Your task to perform on an android device: change your default location settings in chrome Image 0: 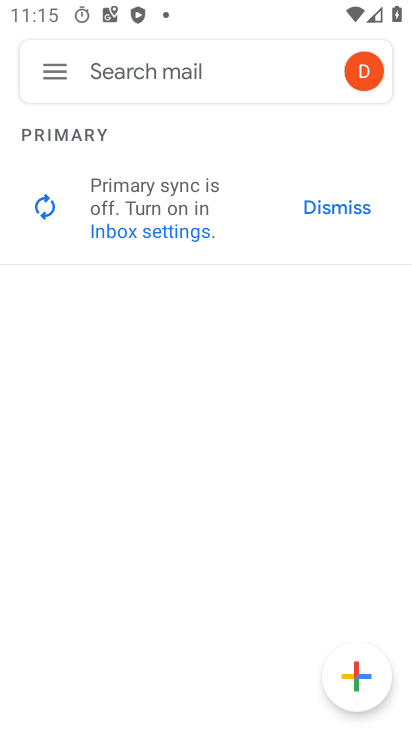
Step 0: press back button
Your task to perform on an android device: change your default location settings in chrome Image 1: 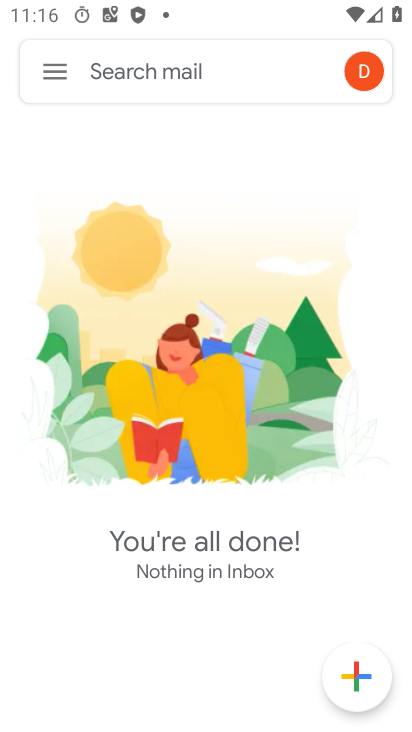
Step 1: press back button
Your task to perform on an android device: change your default location settings in chrome Image 2: 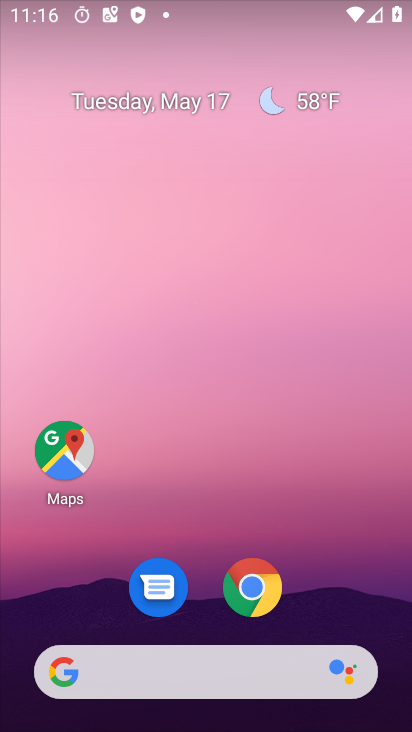
Step 2: click (251, 584)
Your task to perform on an android device: change your default location settings in chrome Image 3: 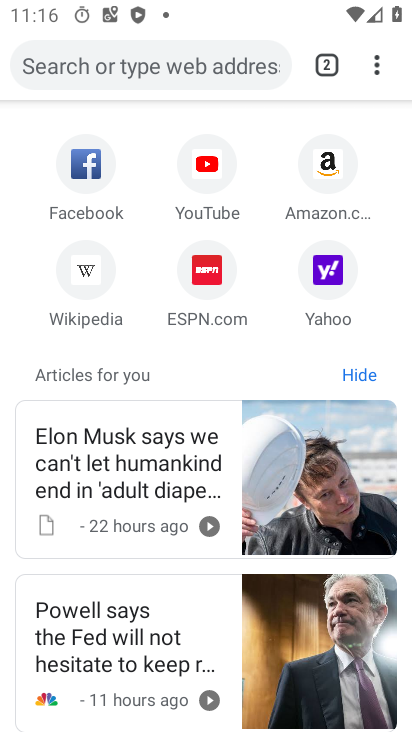
Step 3: click (373, 66)
Your task to perform on an android device: change your default location settings in chrome Image 4: 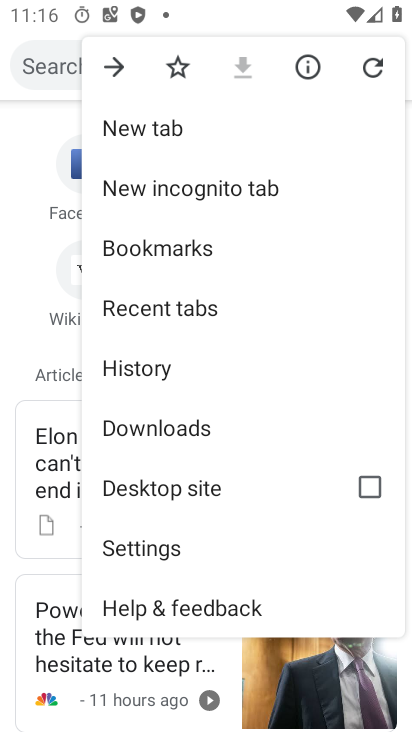
Step 4: click (150, 538)
Your task to perform on an android device: change your default location settings in chrome Image 5: 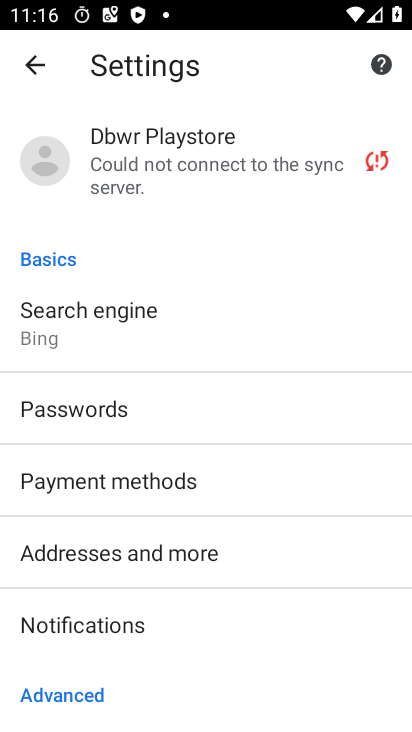
Step 5: drag from (127, 531) to (215, 424)
Your task to perform on an android device: change your default location settings in chrome Image 6: 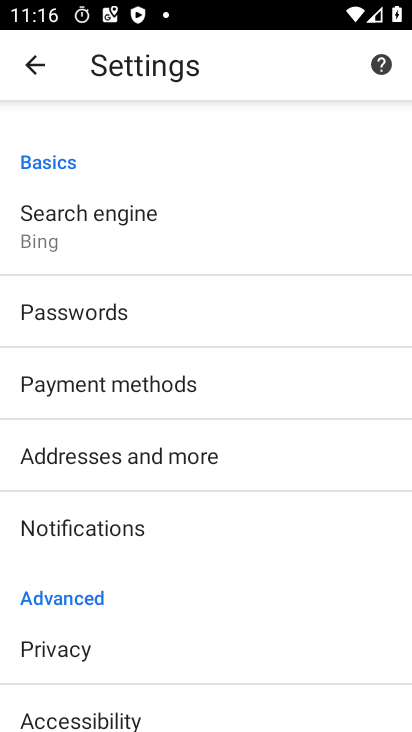
Step 6: drag from (120, 584) to (215, 473)
Your task to perform on an android device: change your default location settings in chrome Image 7: 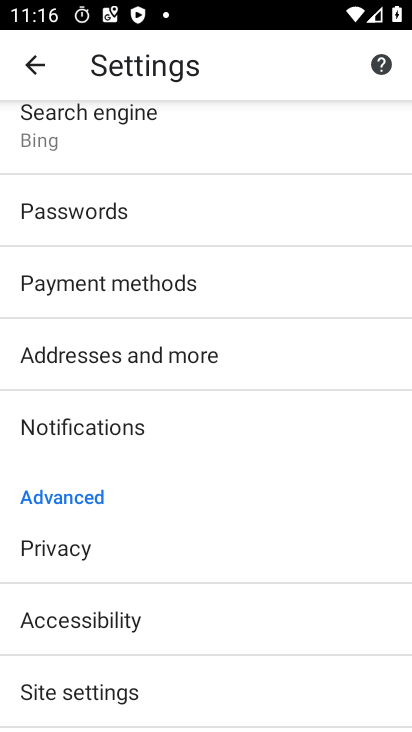
Step 7: drag from (138, 593) to (221, 488)
Your task to perform on an android device: change your default location settings in chrome Image 8: 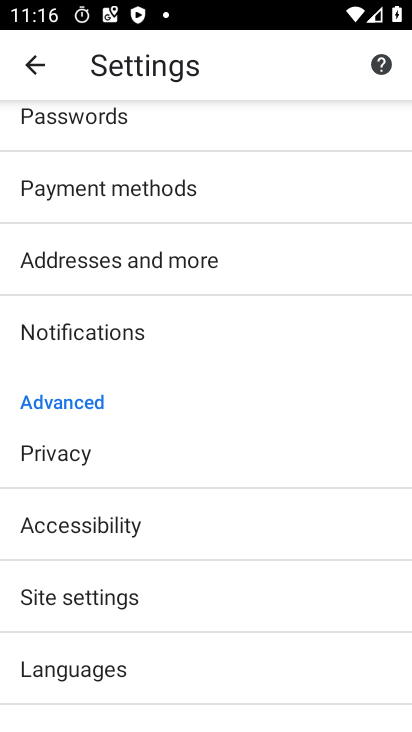
Step 8: click (60, 606)
Your task to perform on an android device: change your default location settings in chrome Image 9: 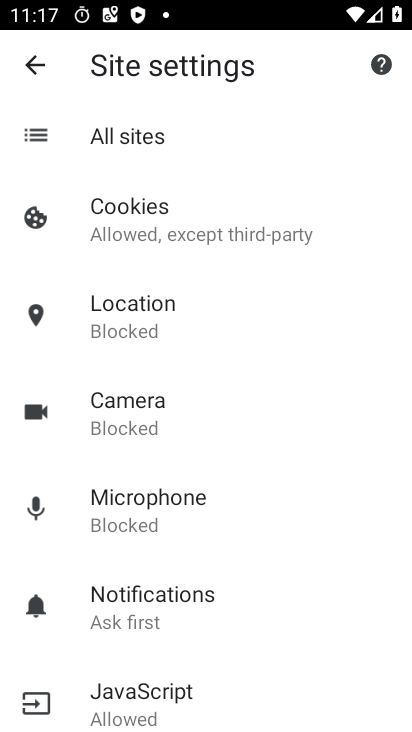
Step 9: drag from (124, 492) to (166, 410)
Your task to perform on an android device: change your default location settings in chrome Image 10: 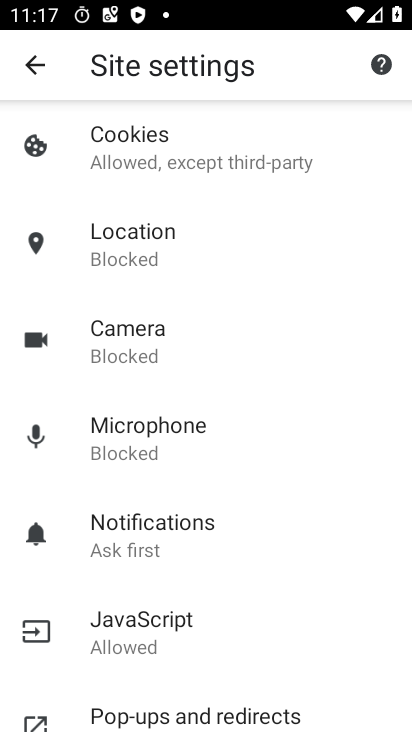
Step 10: click (152, 253)
Your task to perform on an android device: change your default location settings in chrome Image 11: 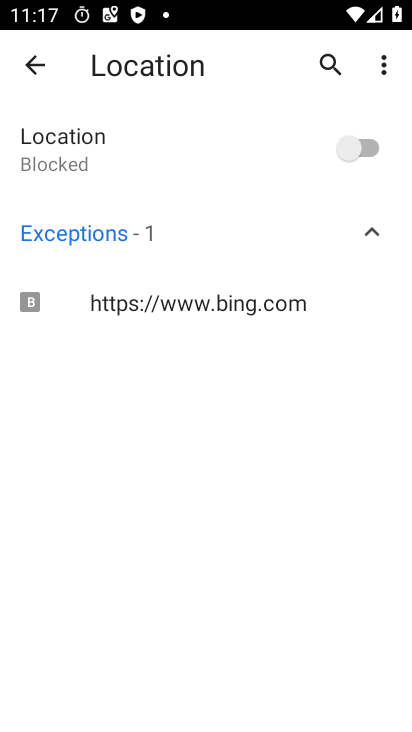
Step 11: click (355, 143)
Your task to perform on an android device: change your default location settings in chrome Image 12: 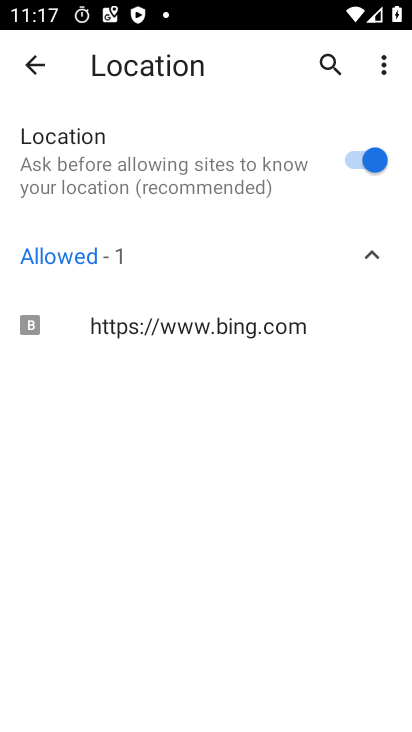
Step 12: task complete